Your task to perform on an android device: Is it going to rain today? Image 0: 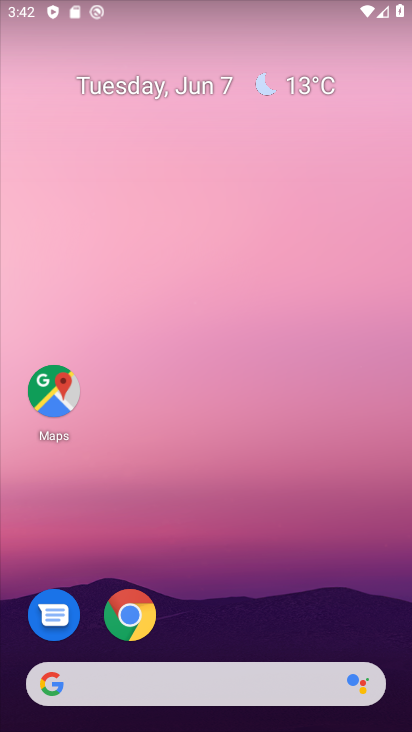
Step 0: drag from (222, 713) to (217, 114)
Your task to perform on an android device: Is it going to rain today? Image 1: 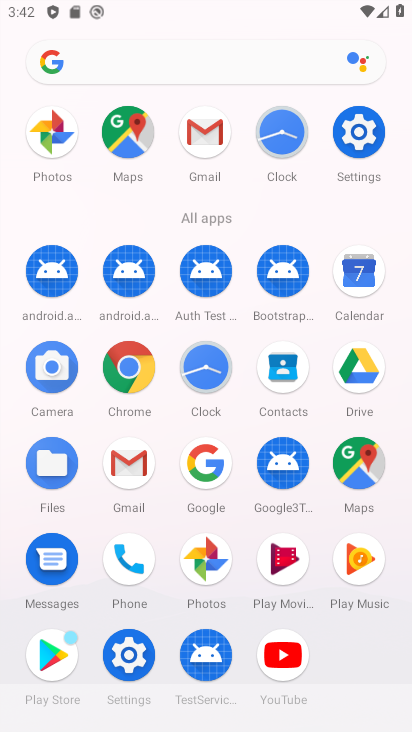
Step 1: click (200, 467)
Your task to perform on an android device: Is it going to rain today? Image 2: 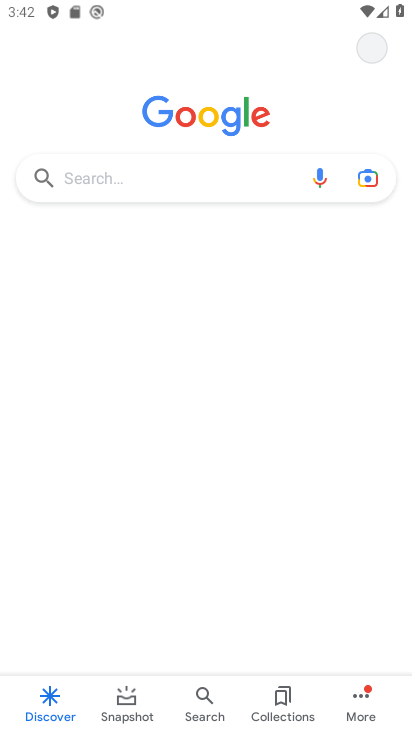
Step 2: click (164, 175)
Your task to perform on an android device: Is it going to rain today? Image 3: 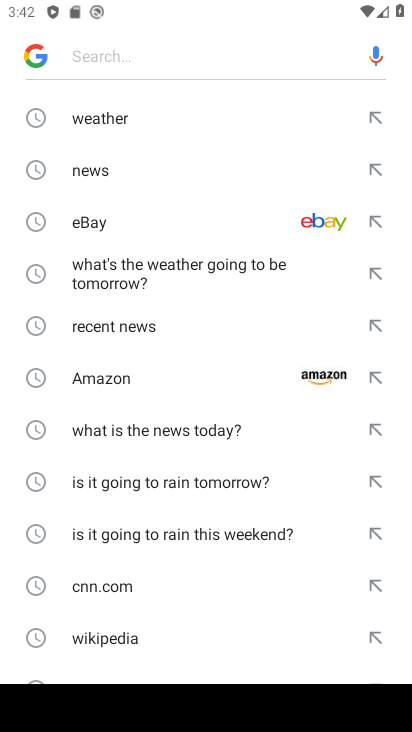
Step 3: click (101, 122)
Your task to perform on an android device: Is it going to rain today? Image 4: 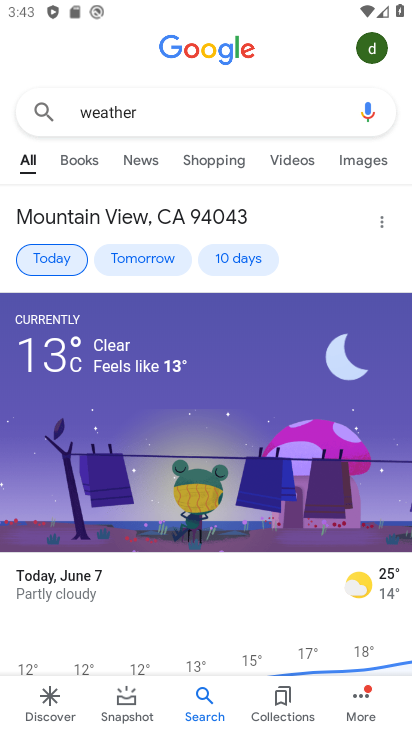
Step 4: click (61, 258)
Your task to perform on an android device: Is it going to rain today? Image 5: 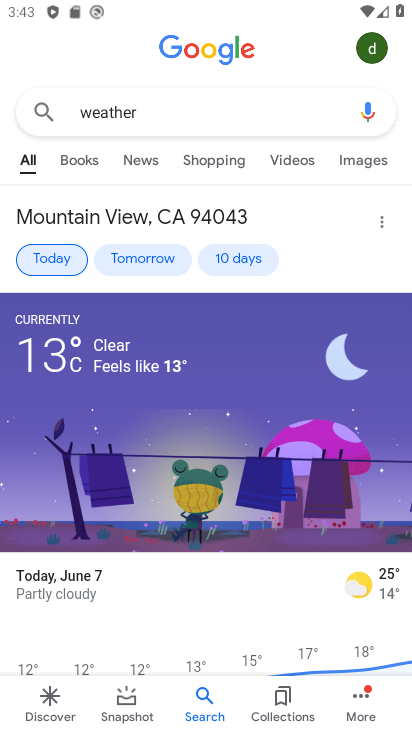
Step 5: click (61, 258)
Your task to perform on an android device: Is it going to rain today? Image 6: 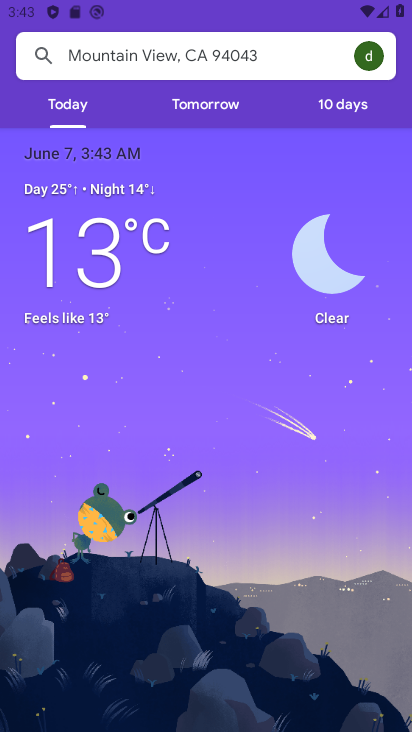
Step 6: task complete